Your task to perform on an android device: Open Google Maps and go to "Timeline" Image 0: 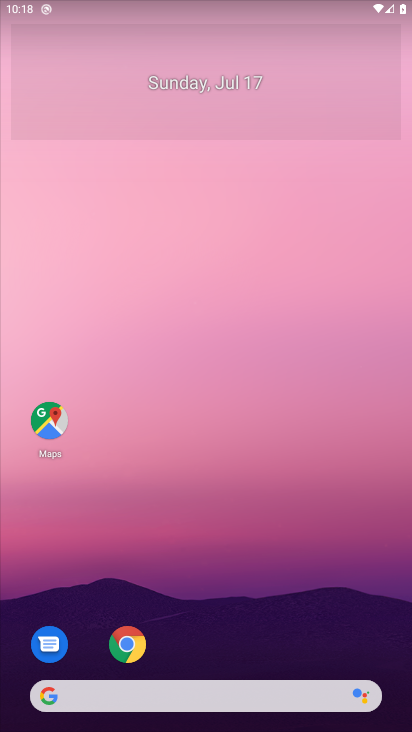
Step 0: press home button
Your task to perform on an android device: Open Google Maps and go to "Timeline" Image 1: 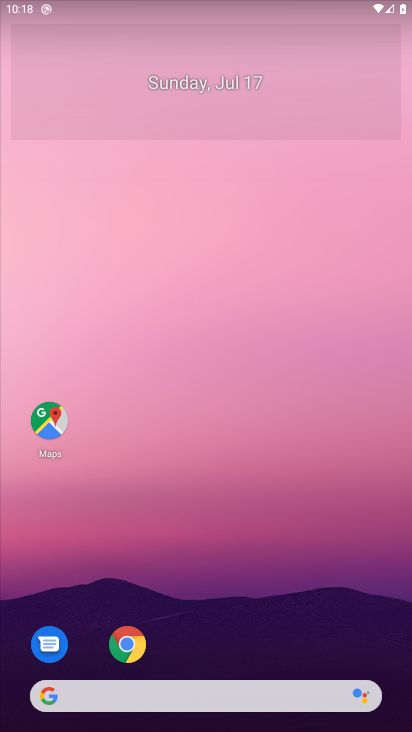
Step 1: click (38, 417)
Your task to perform on an android device: Open Google Maps and go to "Timeline" Image 2: 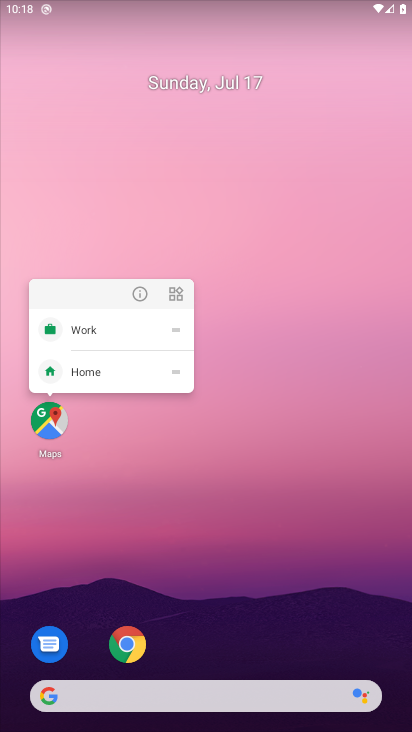
Step 2: click (52, 422)
Your task to perform on an android device: Open Google Maps and go to "Timeline" Image 3: 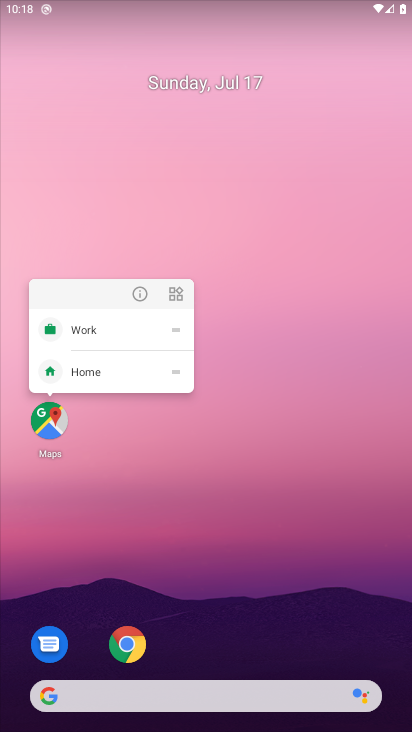
Step 3: click (52, 422)
Your task to perform on an android device: Open Google Maps and go to "Timeline" Image 4: 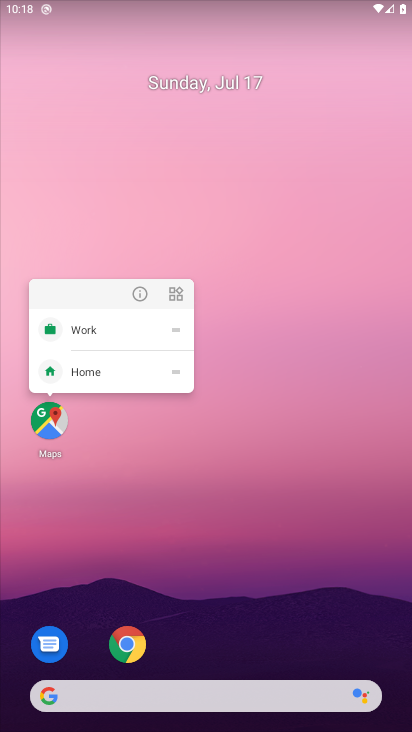
Step 4: click (52, 422)
Your task to perform on an android device: Open Google Maps and go to "Timeline" Image 5: 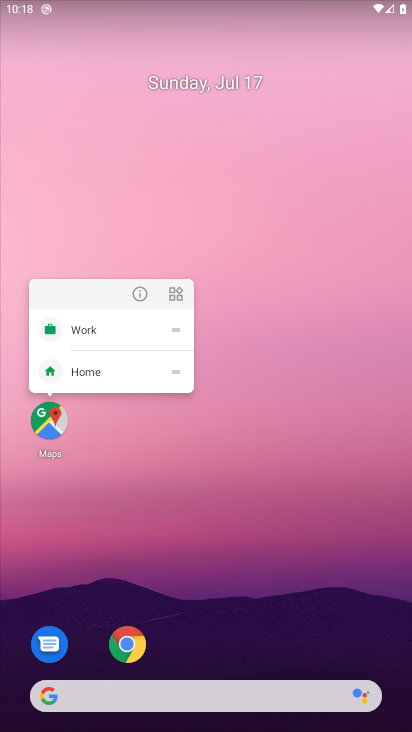
Step 5: click (33, 422)
Your task to perform on an android device: Open Google Maps and go to "Timeline" Image 6: 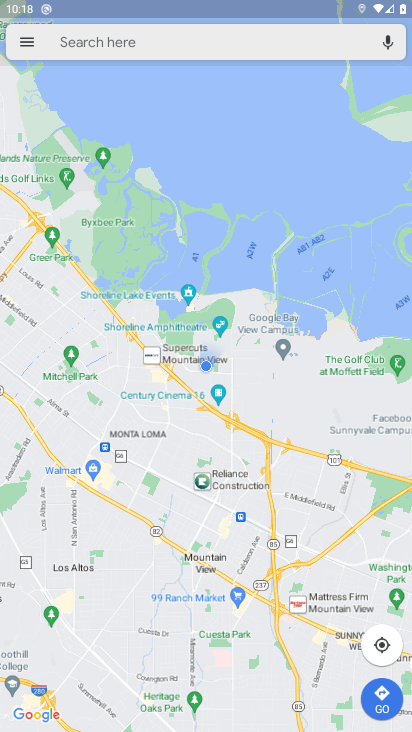
Step 6: click (38, 41)
Your task to perform on an android device: Open Google Maps and go to "Timeline" Image 7: 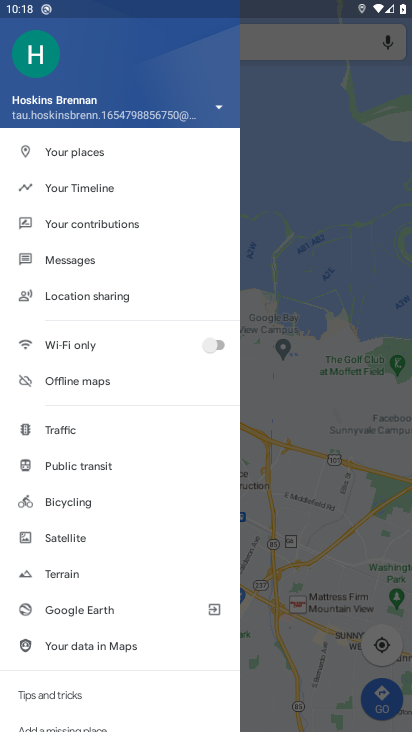
Step 7: click (84, 188)
Your task to perform on an android device: Open Google Maps and go to "Timeline" Image 8: 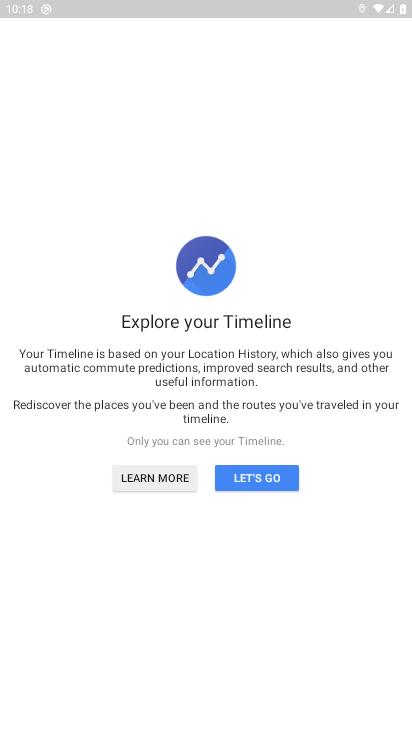
Step 8: click (269, 479)
Your task to perform on an android device: Open Google Maps and go to "Timeline" Image 9: 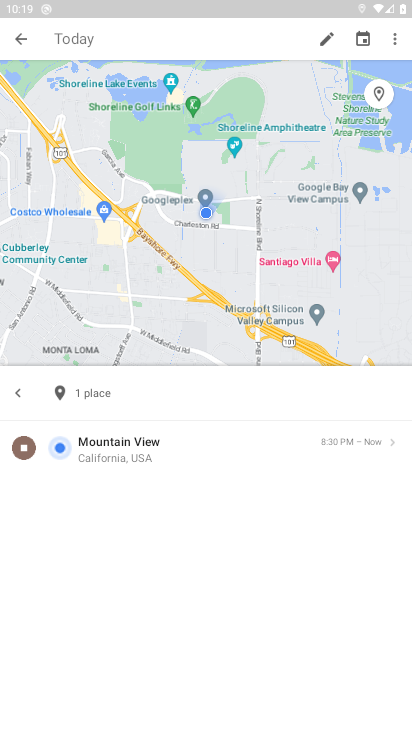
Step 9: task complete